Your task to perform on an android device: change timer sound Image 0: 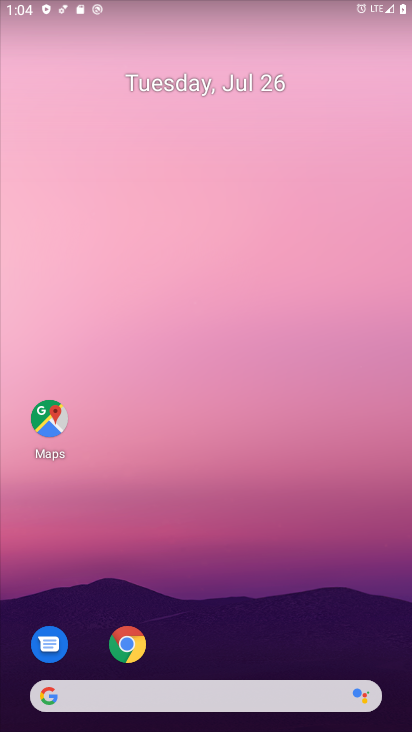
Step 0: drag from (226, 722) to (313, 1)
Your task to perform on an android device: change timer sound Image 1: 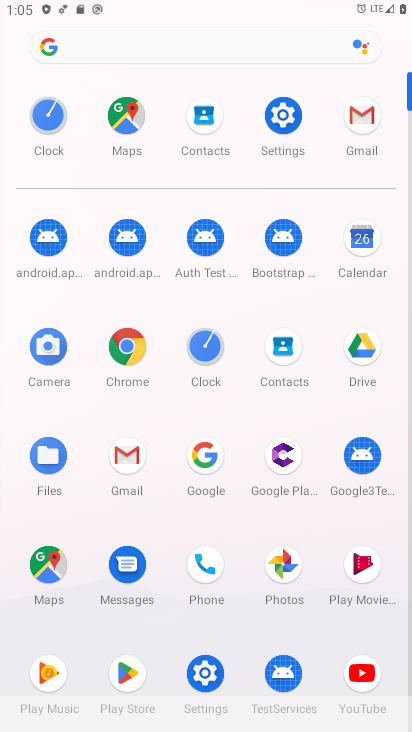
Step 1: click (207, 359)
Your task to perform on an android device: change timer sound Image 2: 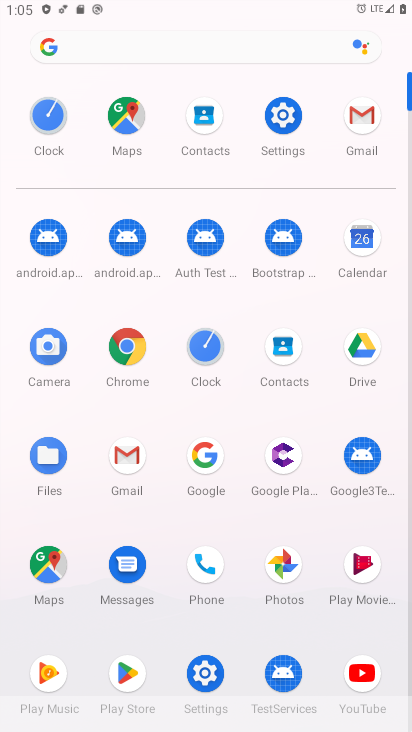
Step 2: click (207, 359)
Your task to perform on an android device: change timer sound Image 3: 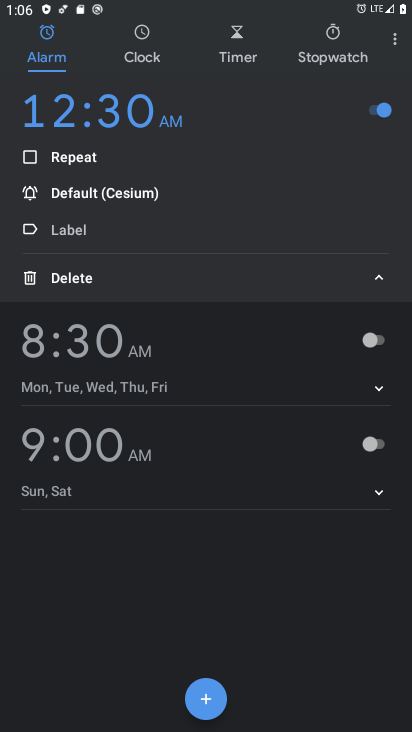
Step 3: click (391, 37)
Your task to perform on an android device: change timer sound Image 4: 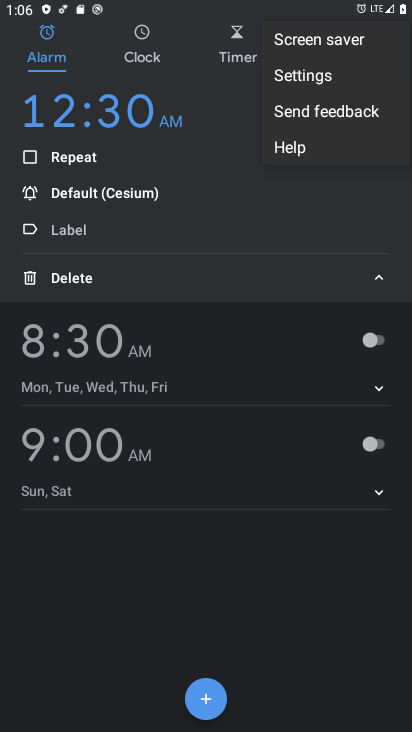
Step 4: click (313, 81)
Your task to perform on an android device: change timer sound Image 5: 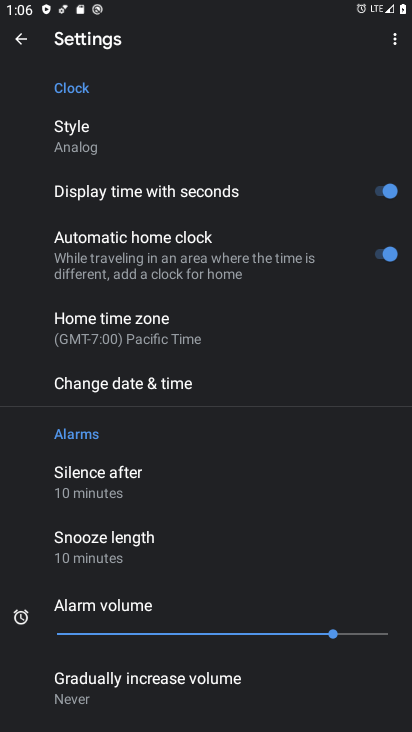
Step 5: drag from (164, 377) to (223, 30)
Your task to perform on an android device: change timer sound Image 6: 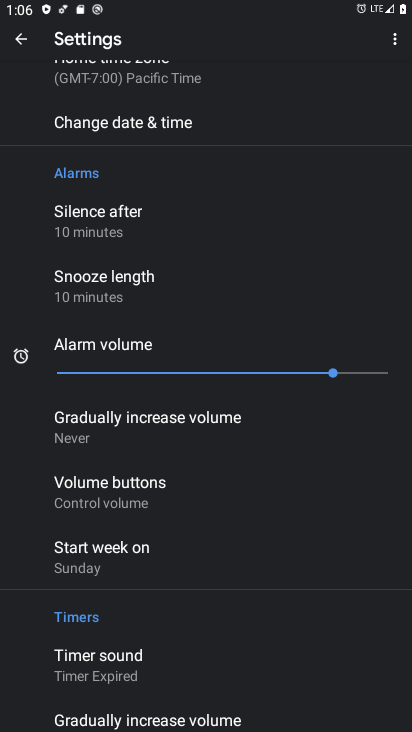
Step 6: click (139, 655)
Your task to perform on an android device: change timer sound Image 7: 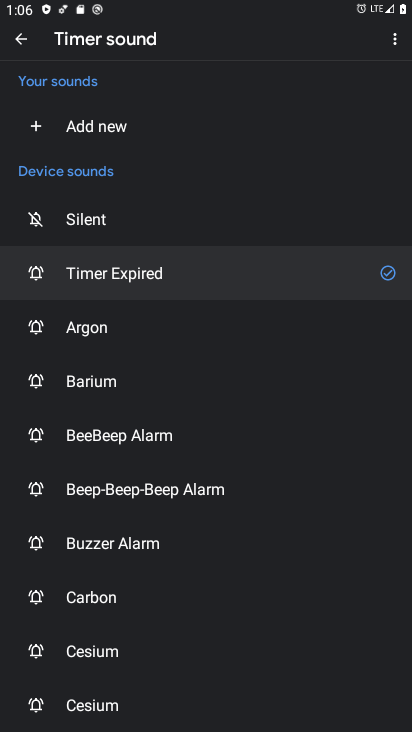
Step 7: click (134, 388)
Your task to perform on an android device: change timer sound Image 8: 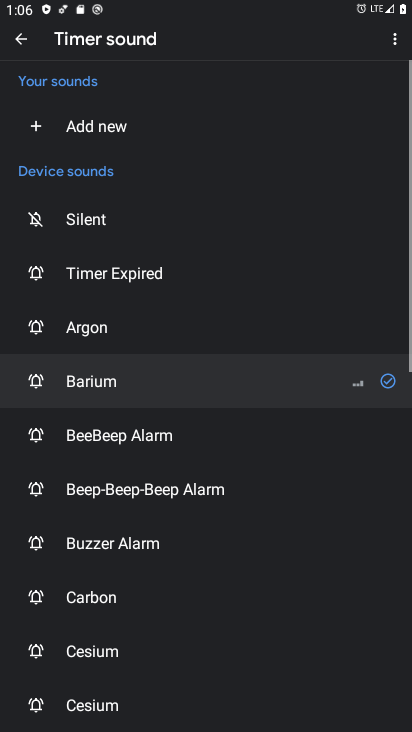
Step 8: task complete